Your task to perform on an android device: Is it going to rain today? Image 0: 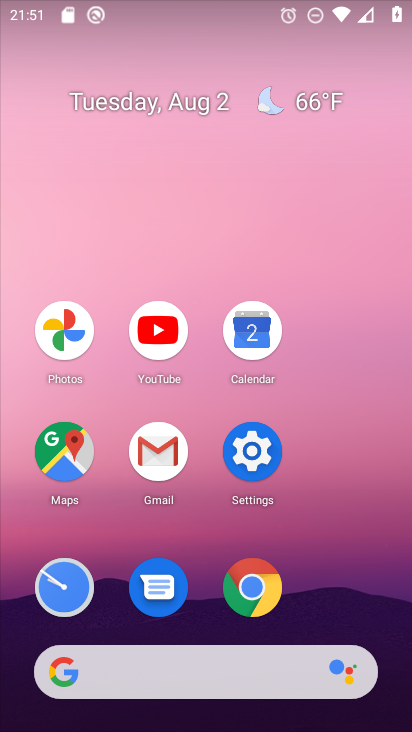
Step 0: click (218, 660)
Your task to perform on an android device: Is it going to rain today? Image 1: 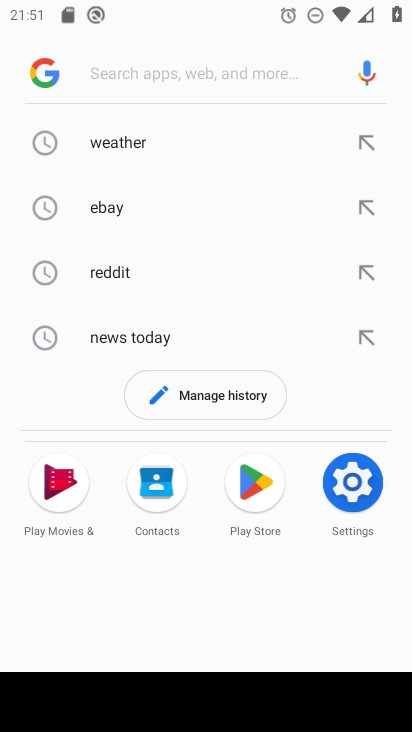
Step 1: click (116, 137)
Your task to perform on an android device: Is it going to rain today? Image 2: 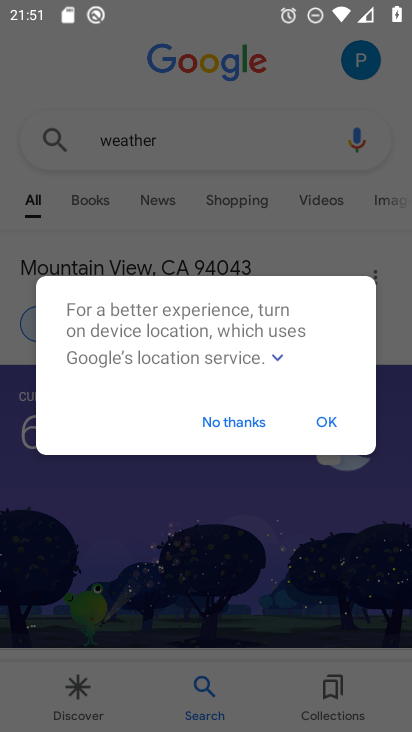
Step 2: click (319, 420)
Your task to perform on an android device: Is it going to rain today? Image 3: 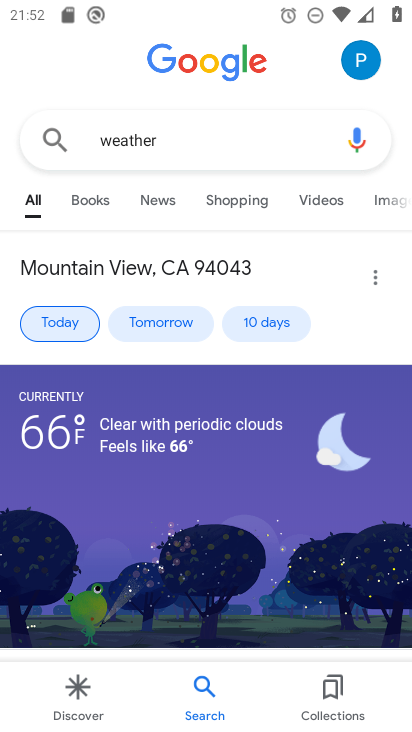
Step 3: task complete